Your task to perform on an android device: uninstall "McDonald's" Image 0: 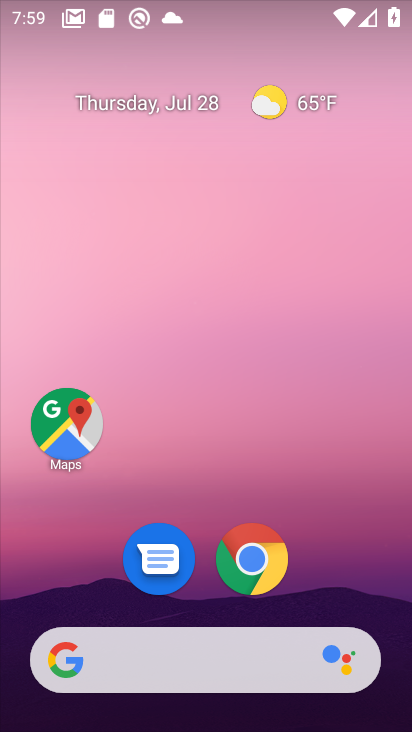
Step 0: drag from (193, 602) to (190, 19)
Your task to perform on an android device: uninstall "McDonald's" Image 1: 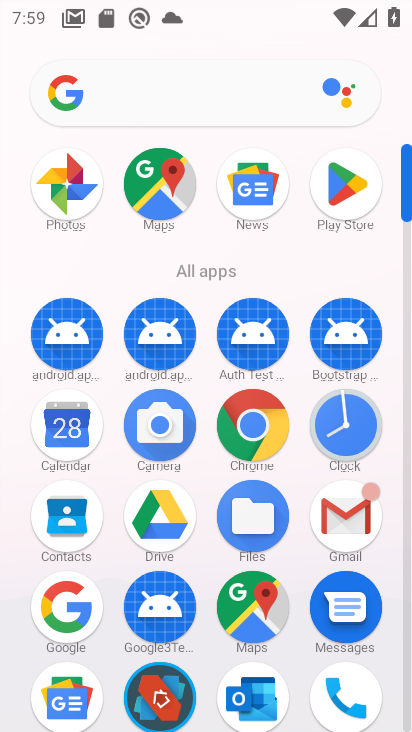
Step 1: drag from (297, 619) to (291, 278)
Your task to perform on an android device: uninstall "McDonald's" Image 2: 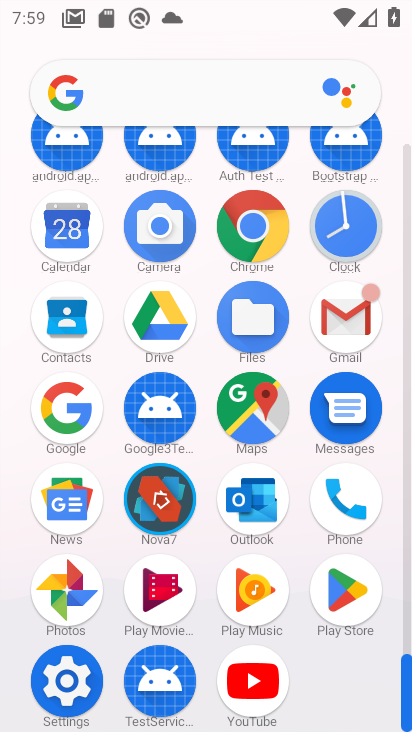
Step 2: click (351, 617)
Your task to perform on an android device: uninstall "McDonald's" Image 3: 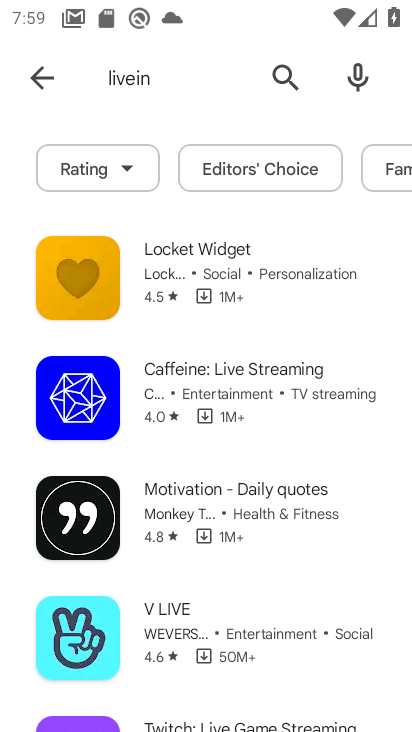
Step 3: click (173, 75)
Your task to perform on an android device: uninstall "McDonald's" Image 4: 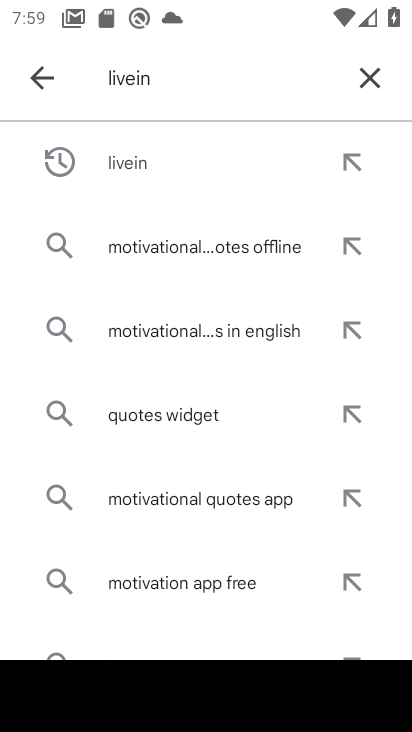
Step 4: click (365, 81)
Your task to perform on an android device: uninstall "McDonald's" Image 5: 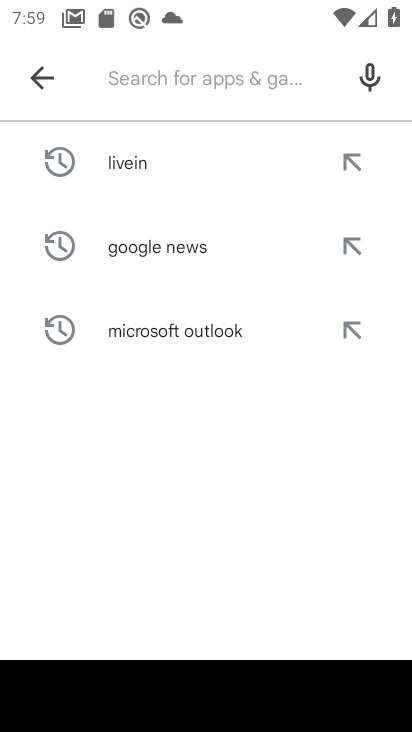
Step 5: type "McDonalds"
Your task to perform on an android device: uninstall "McDonald's" Image 6: 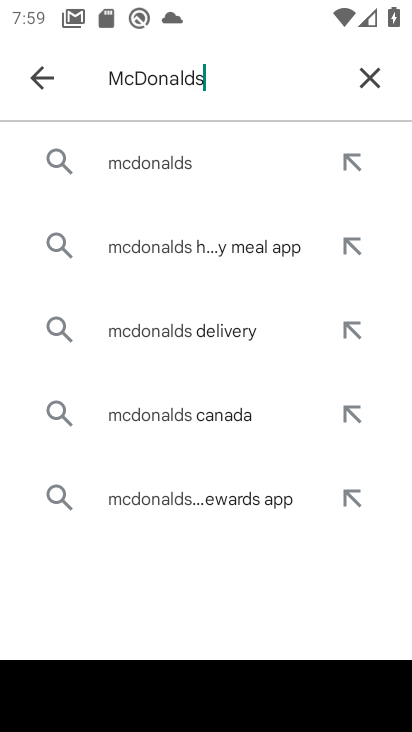
Step 6: click (160, 167)
Your task to perform on an android device: uninstall "McDonald's" Image 7: 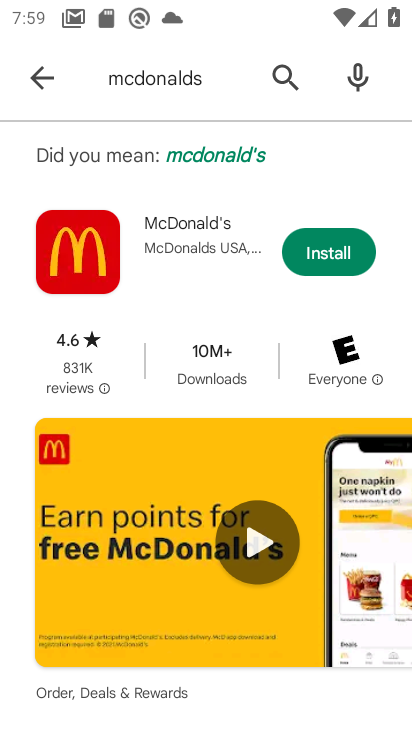
Step 7: task complete